Your task to perform on an android device: Open notification settings Image 0: 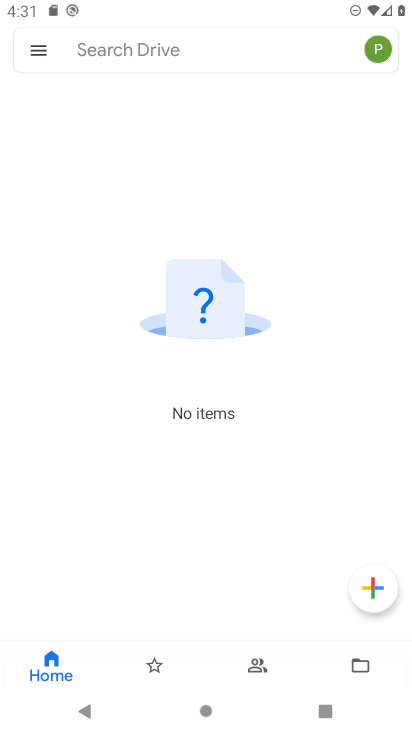
Step 0: press home button
Your task to perform on an android device: Open notification settings Image 1: 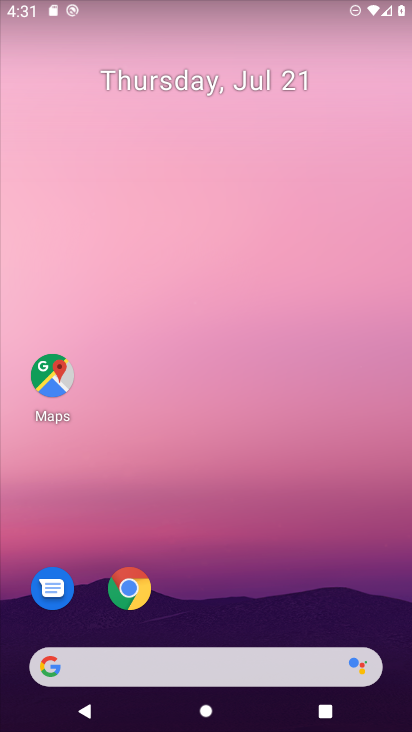
Step 1: drag from (187, 672) to (279, 184)
Your task to perform on an android device: Open notification settings Image 2: 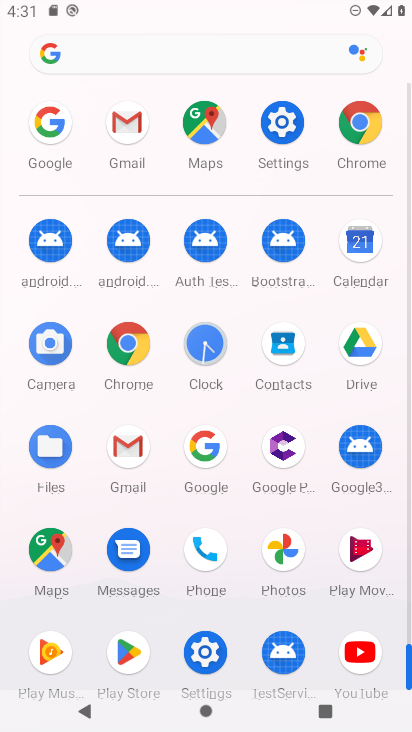
Step 2: click (281, 128)
Your task to perform on an android device: Open notification settings Image 3: 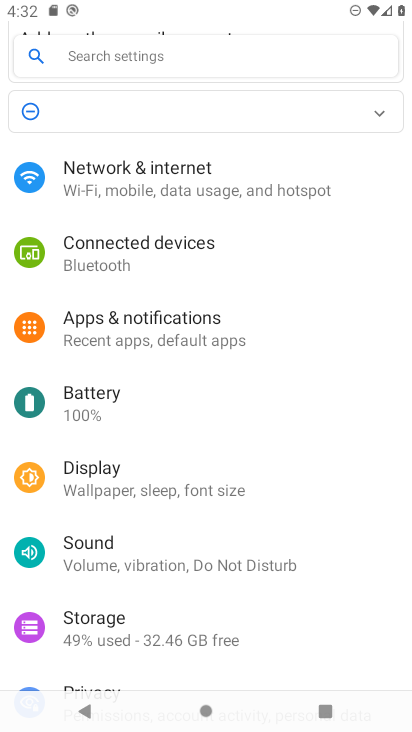
Step 3: click (174, 327)
Your task to perform on an android device: Open notification settings Image 4: 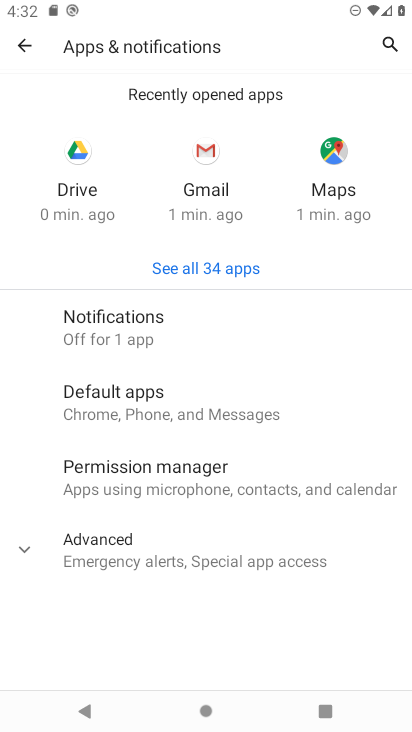
Step 4: click (174, 327)
Your task to perform on an android device: Open notification settings Image 5: 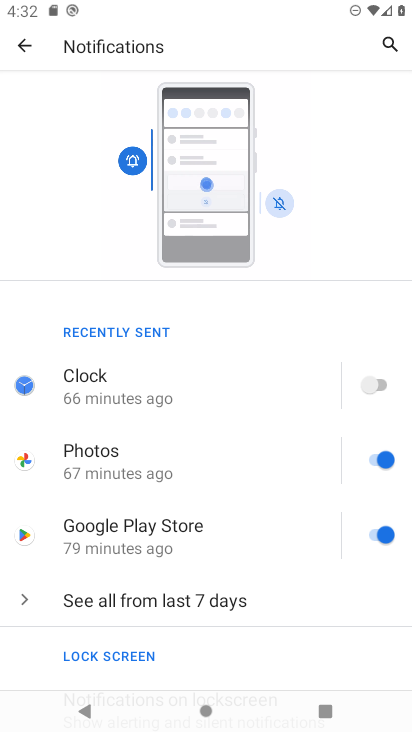
Step 5: task complete